Your task to perform on an android device: Open Maps and search for coffee Image 0: 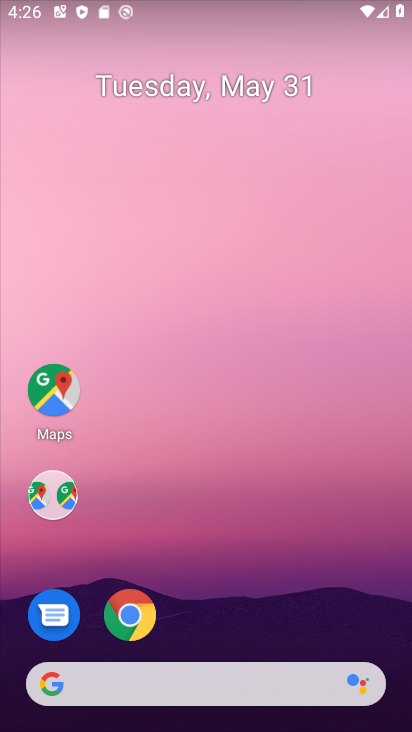
Step 0: drag from (247, 639) to (89, 11)
Your task to perform on an android device: Open Maps and search for coffee Image 1: 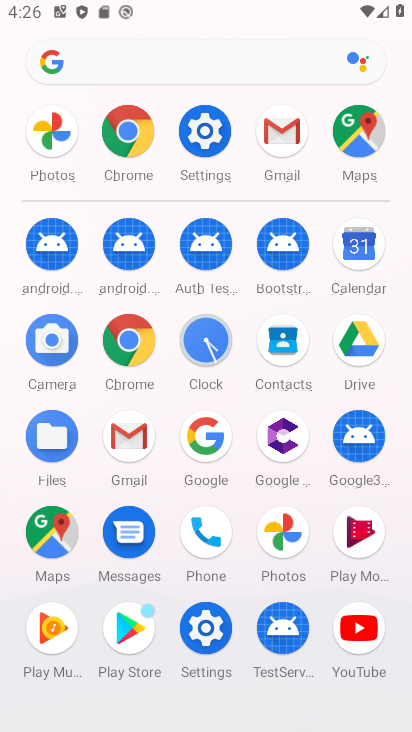
Step 1: click (41, 540)
Your task to perform on an android device: Open Maps and search for coffee Image 2: 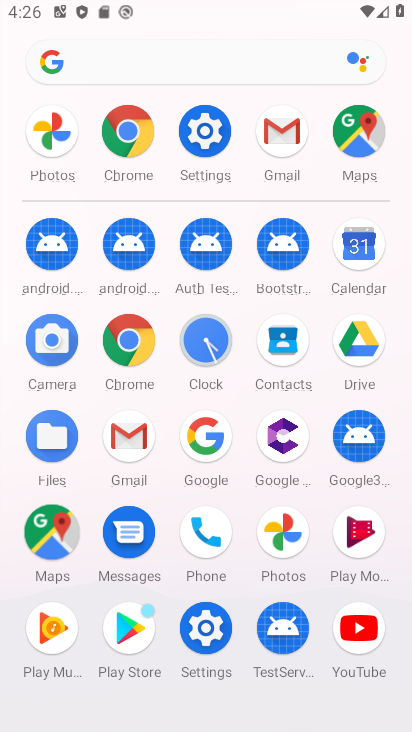
Step 2: click (42, 539)
Your task to perform on an android device: Open Maps and search for coffee Image 3: 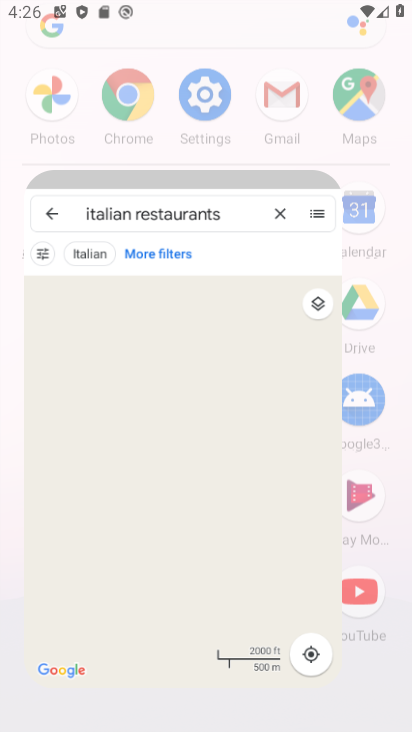
Step 3: click (42, 539)
Your task to perform on an android device: Open Maps and search for coffee Image 4: 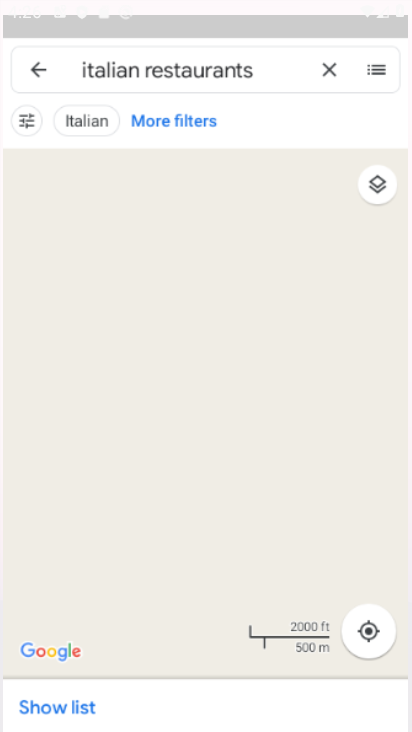
Step 4: click (42, 539)
Your task to perform on an android device: Open Maps and search for coffee Image 5: 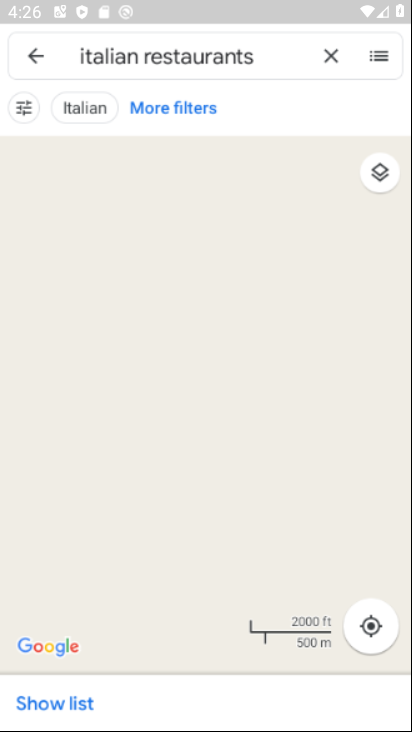
Step 5: click (42, 539)
Your task to perform on an android device: Open Maps and search for coffee Image 6: 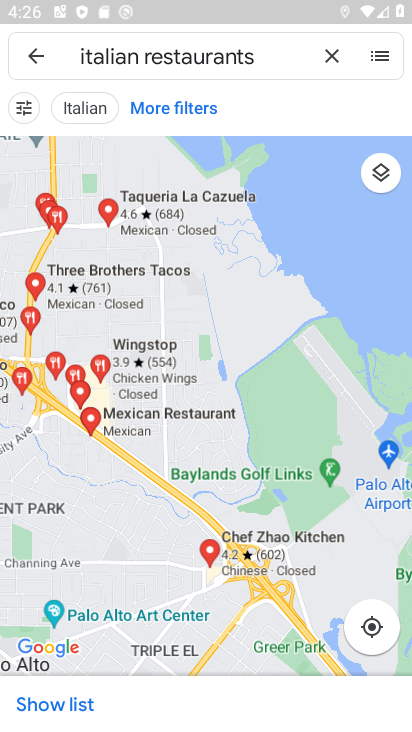
Step 6: click (329, 54)
Your task to perform on an android device: Open Maps and search for coffee Image 7: 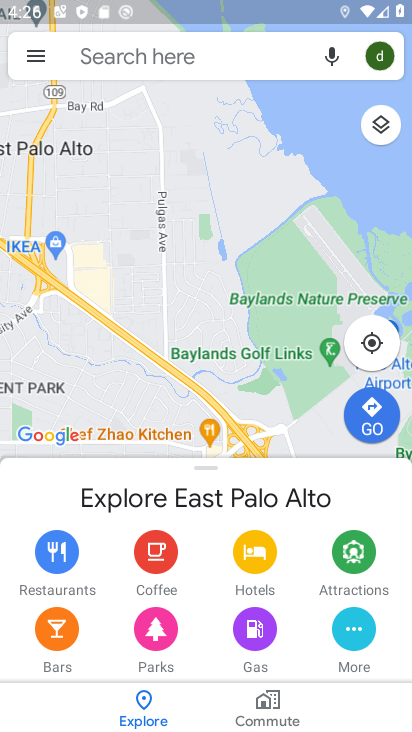
Step 7: click (98, 55)
Your task to perform on an android device: Open Maps and search for coffee Image 8: 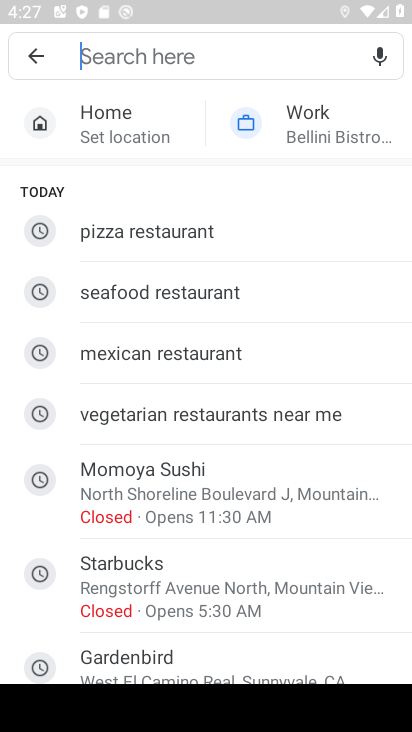
Step 8: type "coffee"
Your task to perform on an android device: Open Maps and search for coffee Image 9: 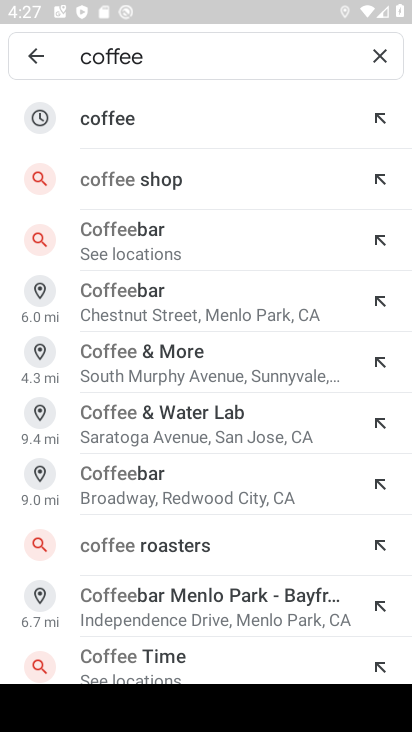
Step 9: click (101, 120)
Your task to perform on an android device: Open Maps and search for coffee Image 10: 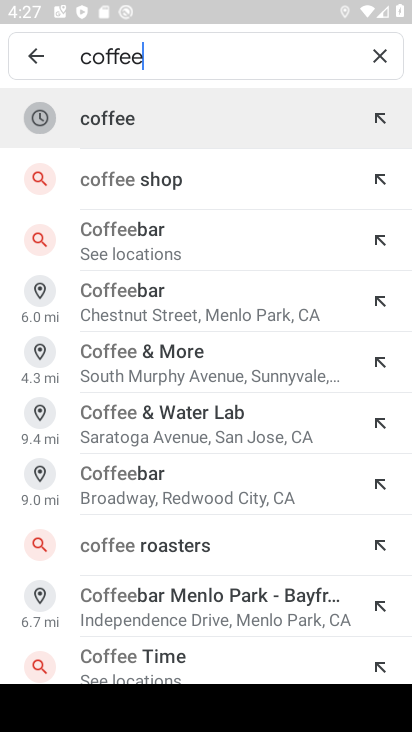
Step 10: click (101, 120)
Your task to perform on an android device: Open Maps and search for coffee Image 11: 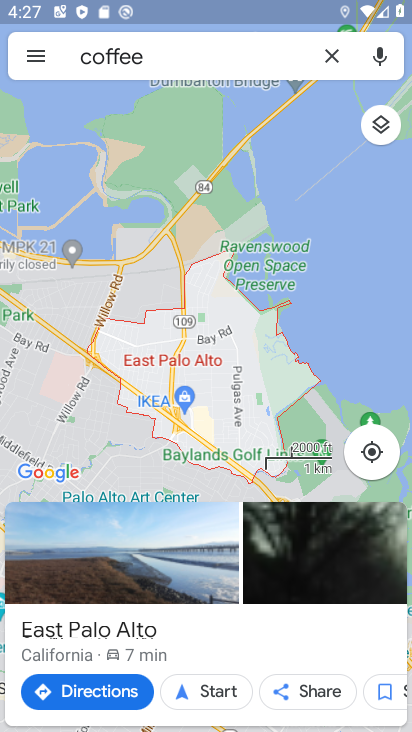
Step 11: task complete